Your task to perform on an android device: open a new tab in the chrome app Image 0: 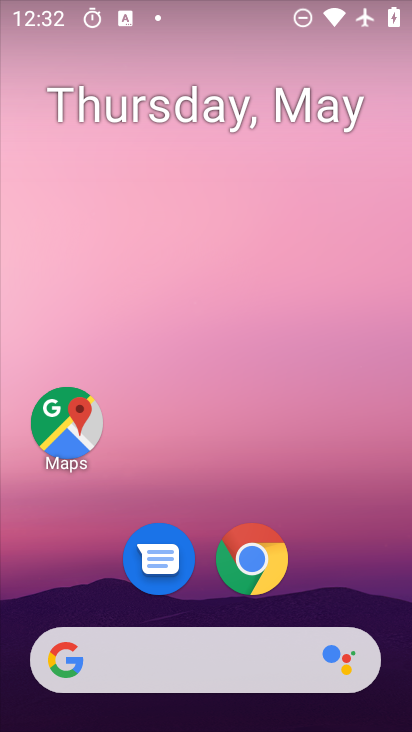
Step 0: drag from (226, 570) to (270, 217)
Your task to perform on an android device: open a new tab in the chrome app Image 1: 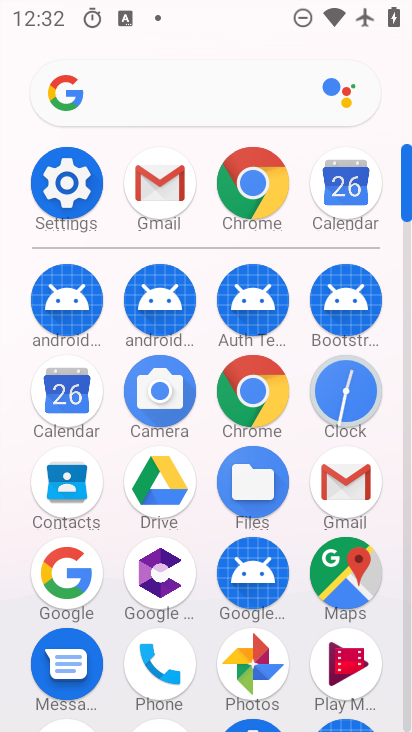
Step 1: click (266, 208)
Your task to perform on an android device: open a new tab in the chrome app Image 2: 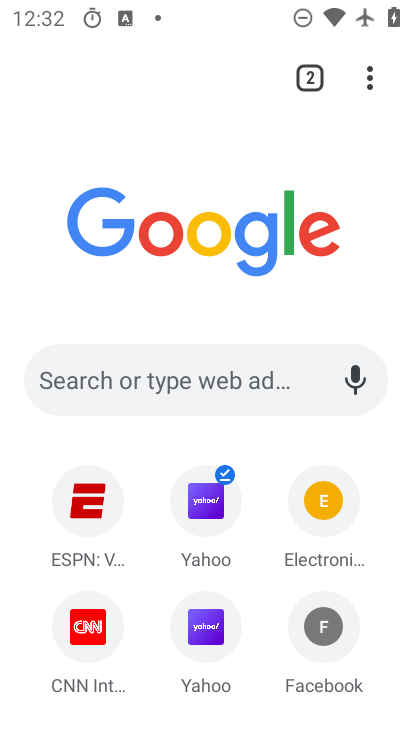
Step 2: drag from (314, 80) to (265, 296)
Your task to perform on an android device: open a new tab in the chrome app Image 3: 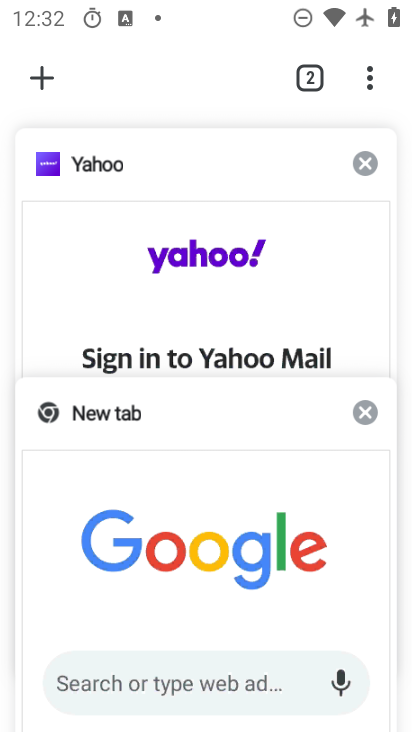
Step 3: click (43, 78)
Your task to perform on an android device: open a new tab in the chrome app Image 4: 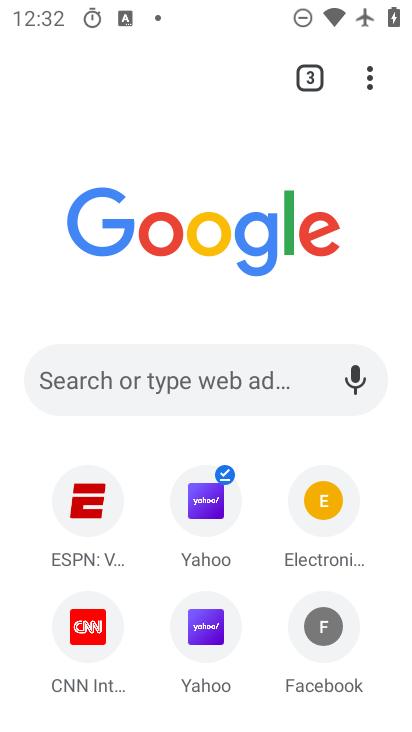
Step 4: task complete